Your task to perform on an android device: turn on translation in the chrome app Image 0: 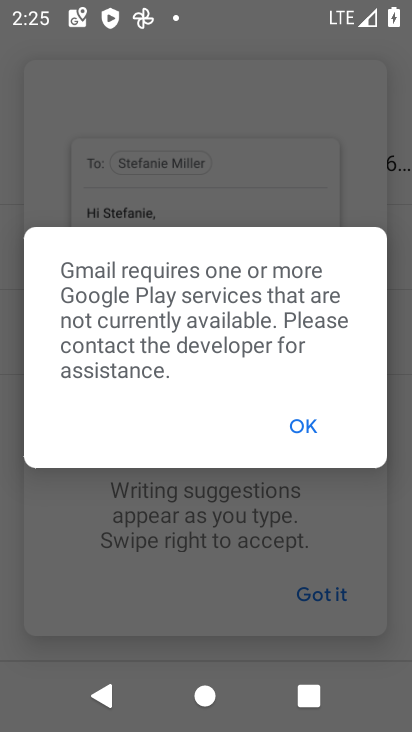
Step 0: press home button
Your task to perform on an android device: turn on translation in the chrome app Image 1: 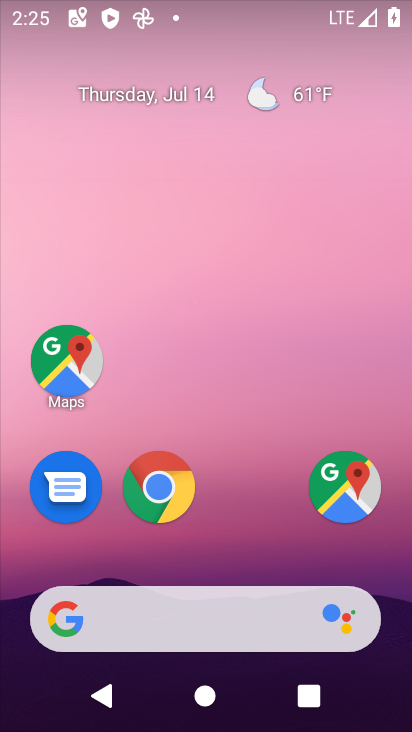
Step 1: drag from (274, 570) to (274, 179)
Your task to perform on an android device: turn on translation in the chrome app Image 2: 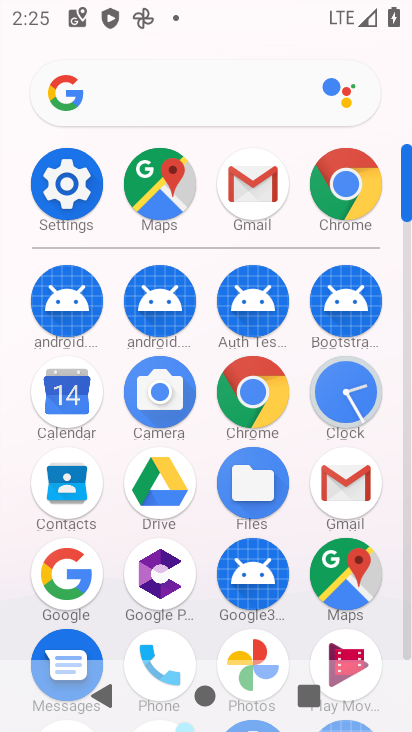
Step 2: click (263, 387)
Your task to perform on an android device: turn on translation in the chrome app Image 3: 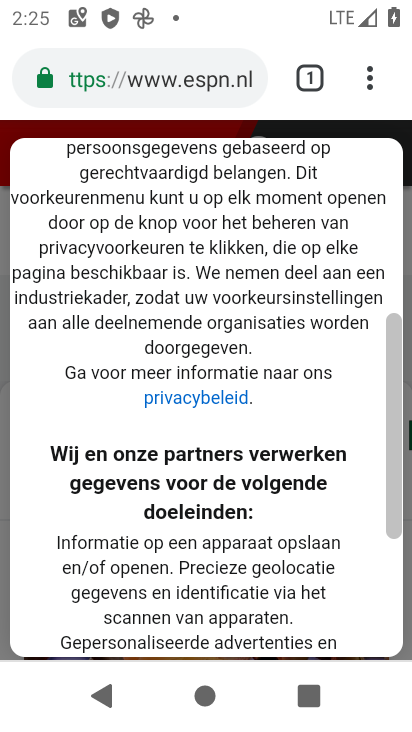
Step 3: click (369, 82)
Your task to perform on an android device: turn on translation in the chrome app Image 4: 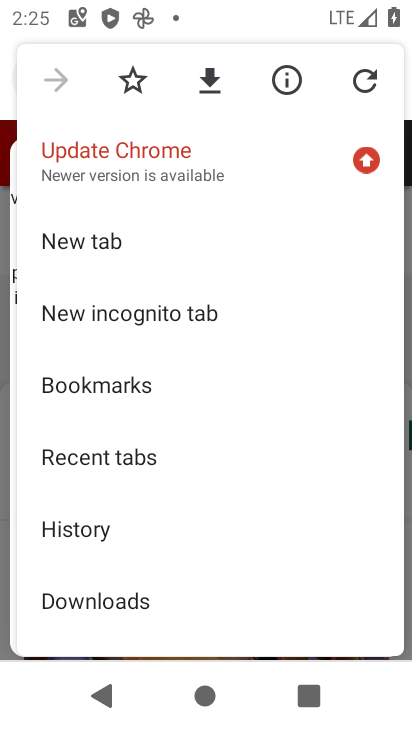
Step 4: drag from (312, 468) to (319, 356)
Your task to perform on an android device: turn on translation in the chrome app Image 5: 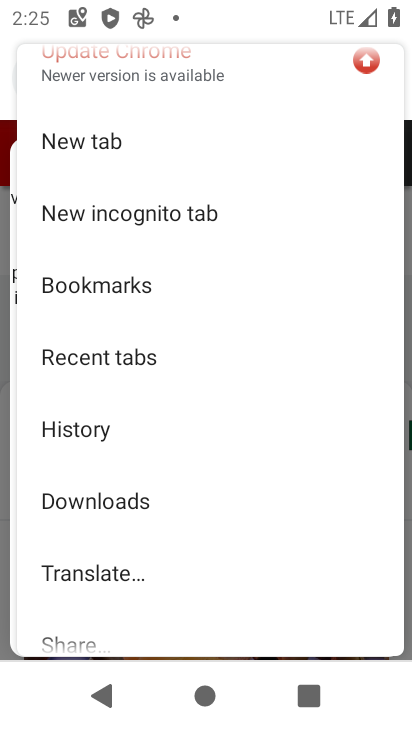
Step 5: drag from (306, 502) to (313, 324)
Your task to perform on an android device: turn on translation in the chrome app Image 6: 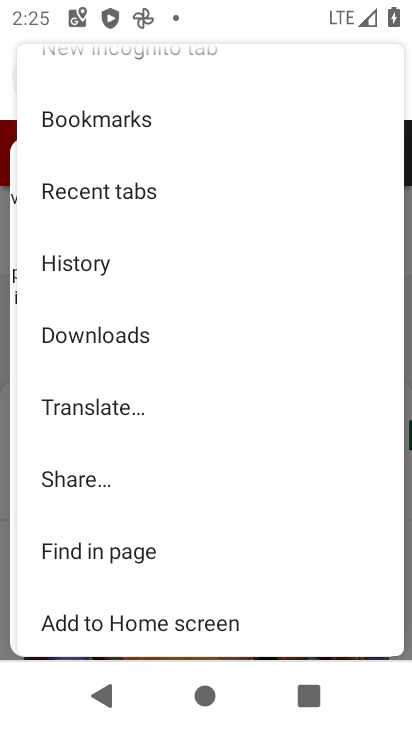
Step 6: drag from (304, 528) to (304, 347)
Your task to perform on an android device: turn on translation in the chrome app Image 7: 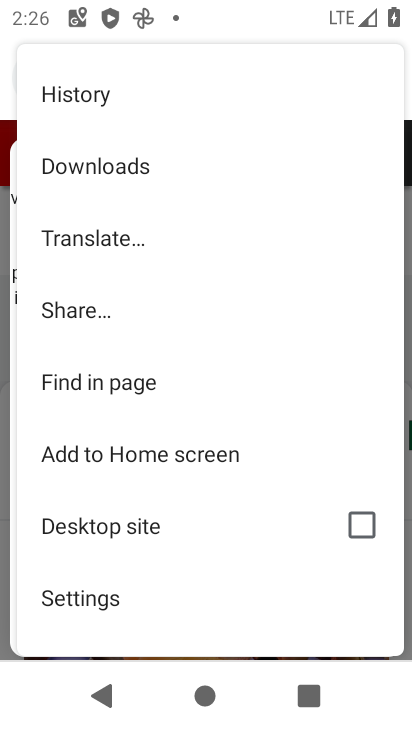
Step 7: drag from (281, 505) to (284, 374)
Your task to perform on an android device: turn on translation in the chrome app Image 8: 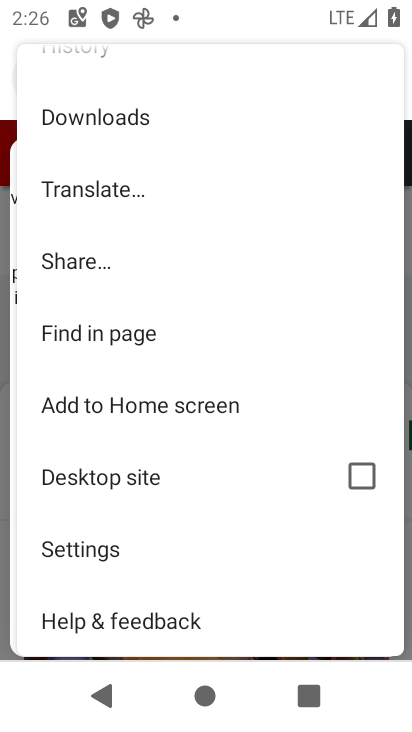
Step 8: click (117, 544)
Your task to perform on an android device: turn on translation in the chrome app Image 9: 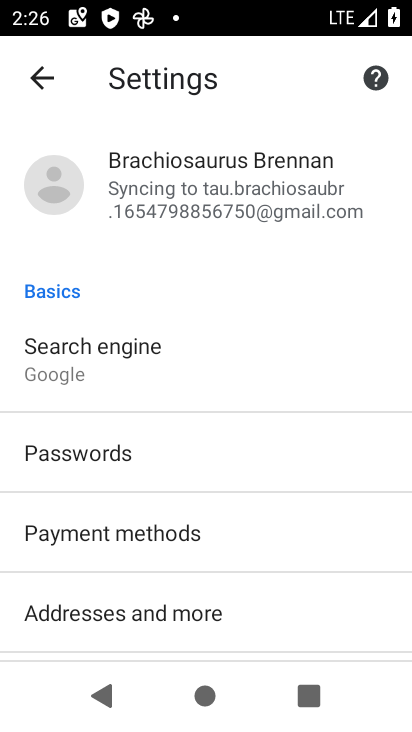
Step 9: drag from (258, 551) to (266, 436)
Your task to perform on an android device: turn on translation in the chrome app Image 10: 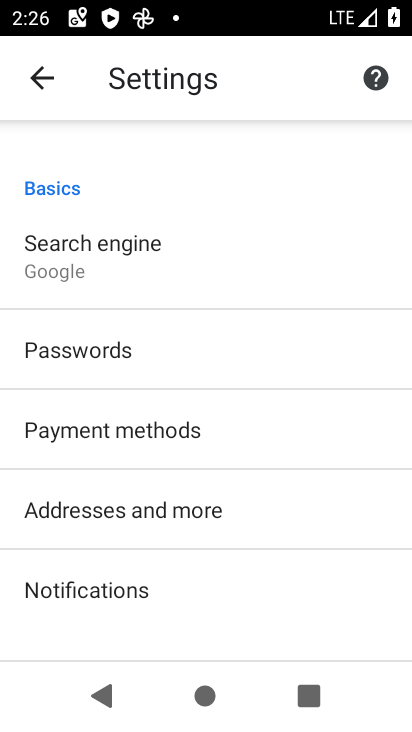
Step 10: drag from (278, 544) to (289, 461)
Your task to perform on an android device: turn on translation in the chrome app Image 11: 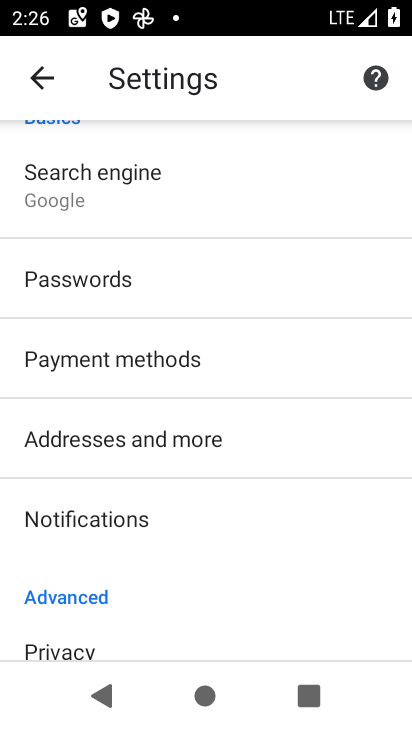
Step 11: drag from (275, 553) to (287, 420)
Your task to perform on an android device: turn on translation in the chrome app Image 12: 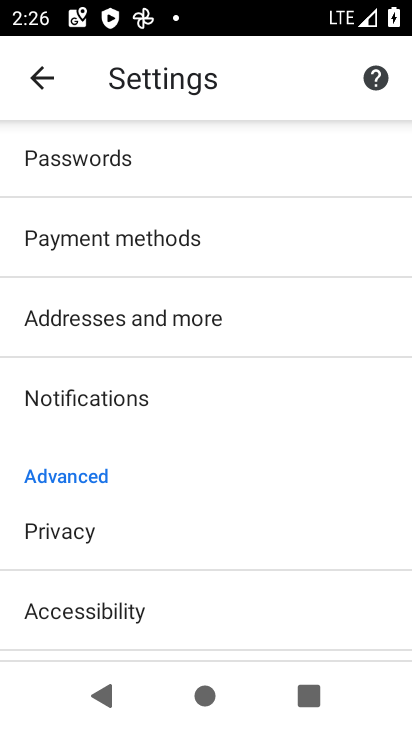
Step 12: drag from (284, 540) to (285, 447)
Your task to perform on an android device: turn on translation in the chrome app Image 13: 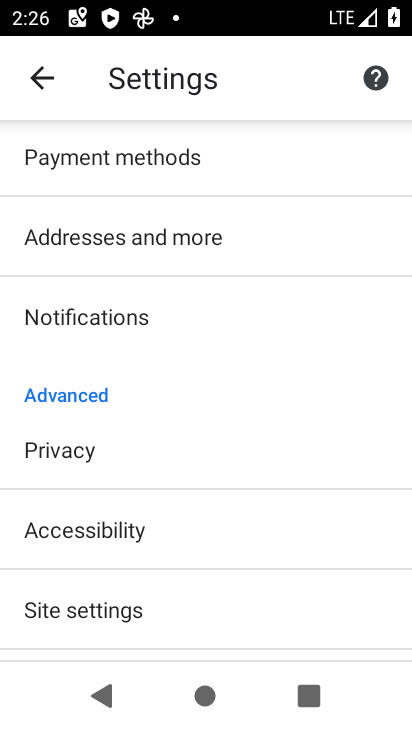
Step 13: drag from (267, 557) to (266, 390)
Your task to perform on an android device: turn on translation in the chrome app Image 14: 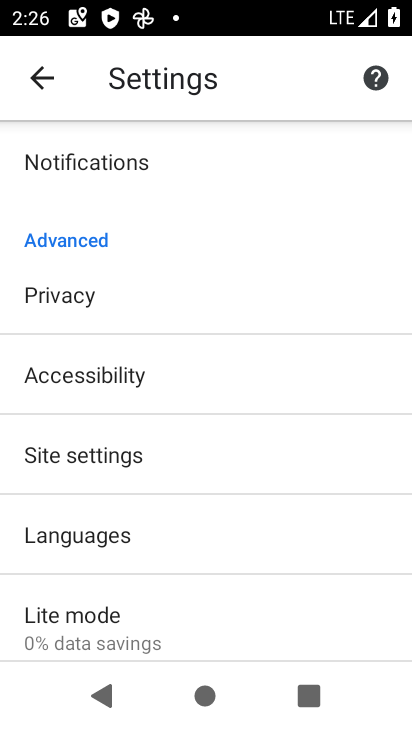
Step 14: click (260, 522)
Your task to perform on an android device: turn on translation in the chrome app Image 15: 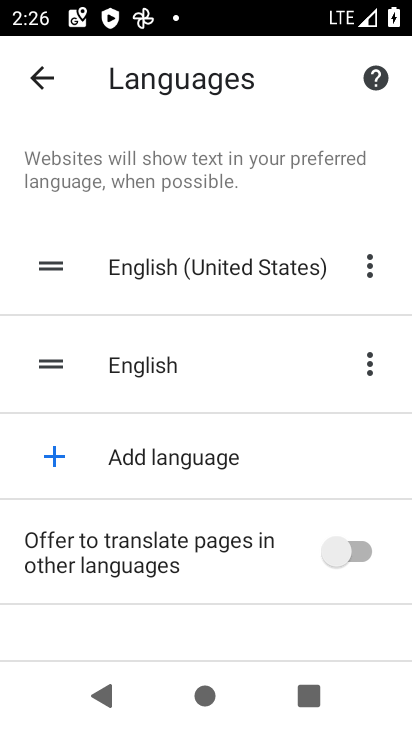
Step 15: click (346, 554)
Your task to perform on an android device: turn on translation in the chrome app Image 16: 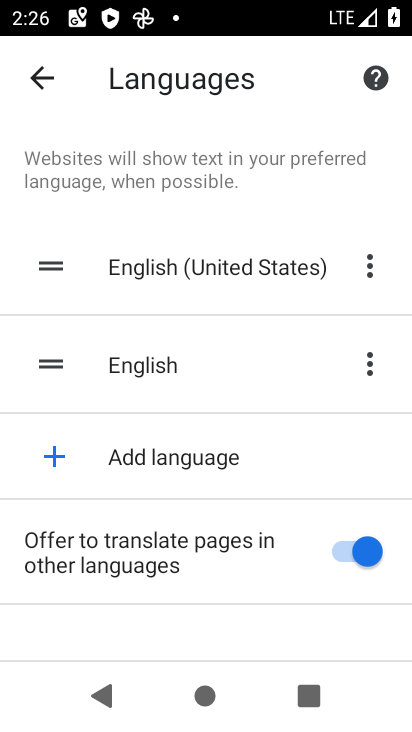
Step 16: task complete